Your task to perform on an android device: Is it going to rain this weekend? Image 0: 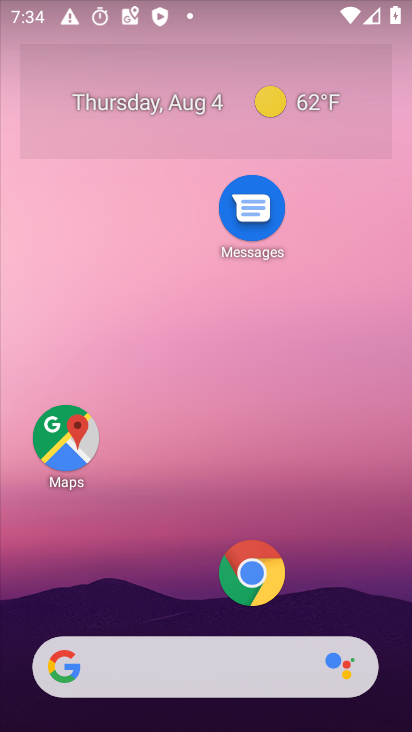
Step 0: press home button
Your task to perform on an android device: Is it going to rain this weekend? Image 1: 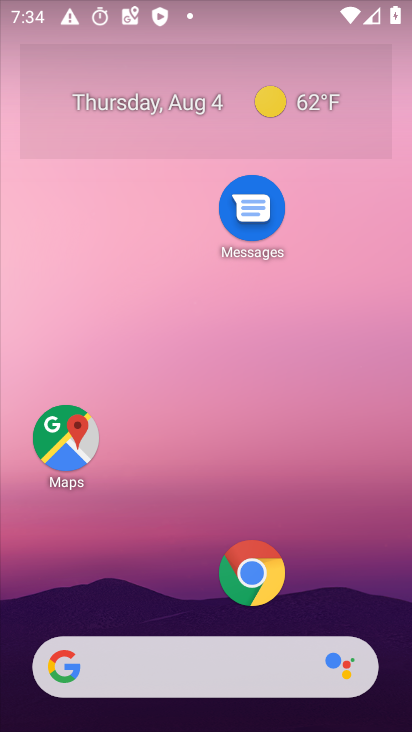
Step 1: click (60, 670)
Your task to perform on an android device: Is it going to rain this weekend? Image 2: 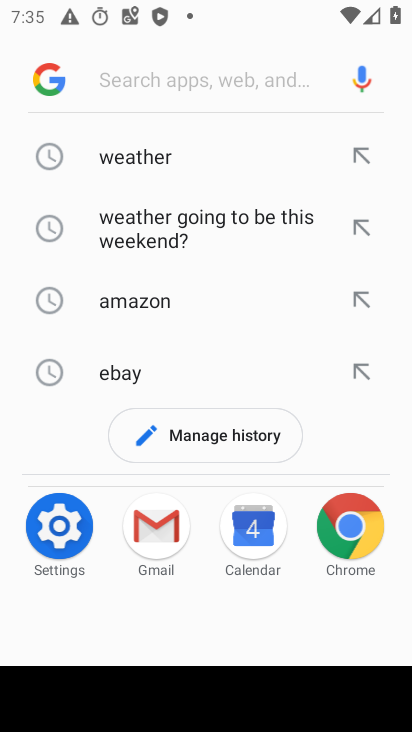
Step 2: type " rain this weekend?"
Your task to perform on an android device: Is it going to rain this weekend? Image 3: 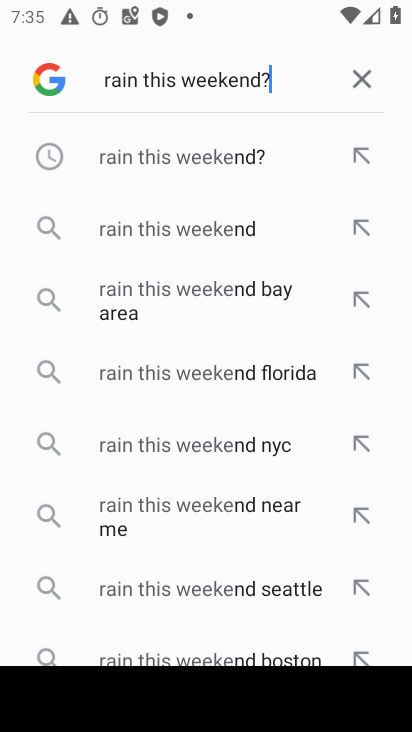
Step 3: press enter
Your task to perform on an android device: Is it going to rain this weekend? Image 4: 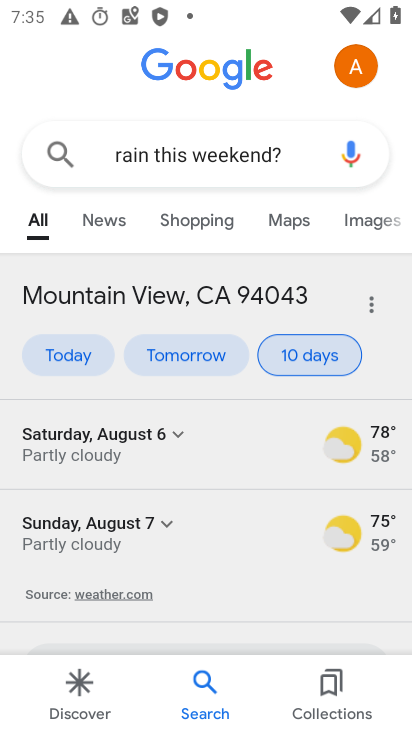
Step 4: task complete